Your task to perform on an android device: Go to ESPN.com Image 0: 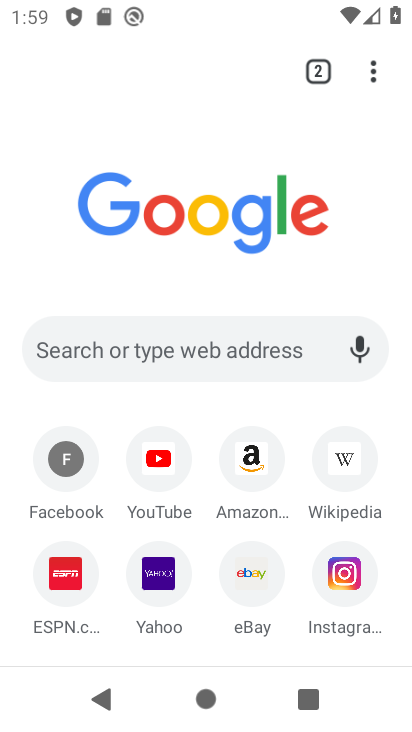
Step 0: click (78, 579)
Your task to perform on an android device: Go to ESPN.com Image 1: 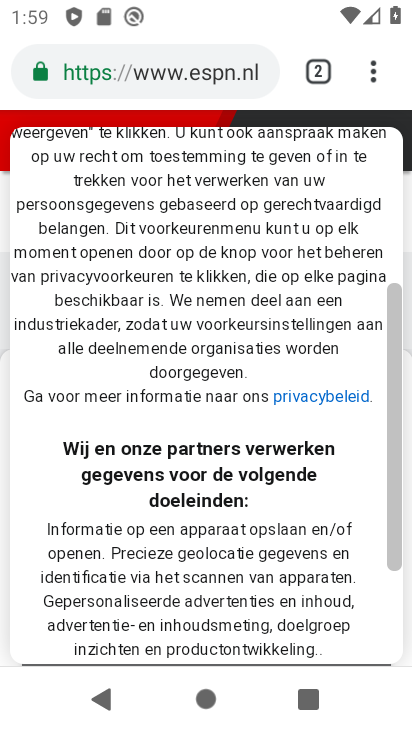
Step 1: drag from (193, 584) to (159, 262)
Your task to perform on an android device: Go to ESPN.com Image 2: 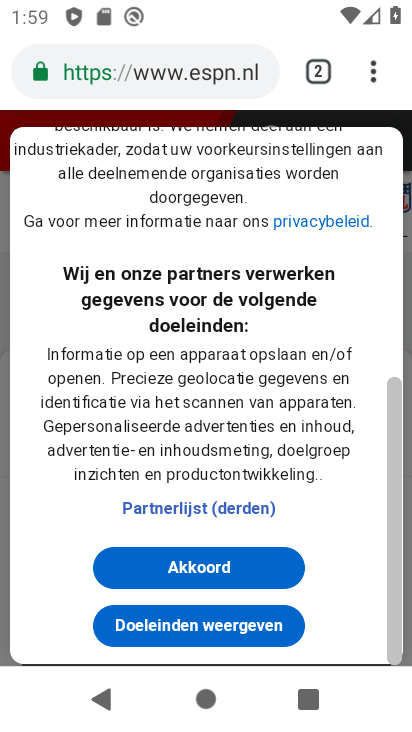
Step 2: click (252, 562)
Your task to perform on an android device: Go to ESPN.com Image 3: 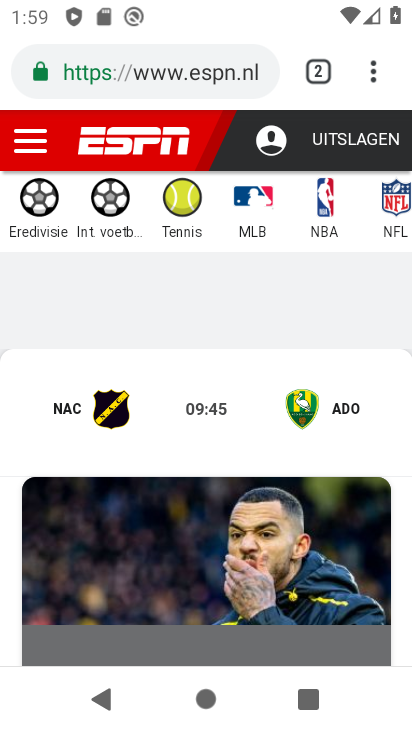
Step 3: task complete